Your task to perform on an android device: Open Google Maps Image 0: 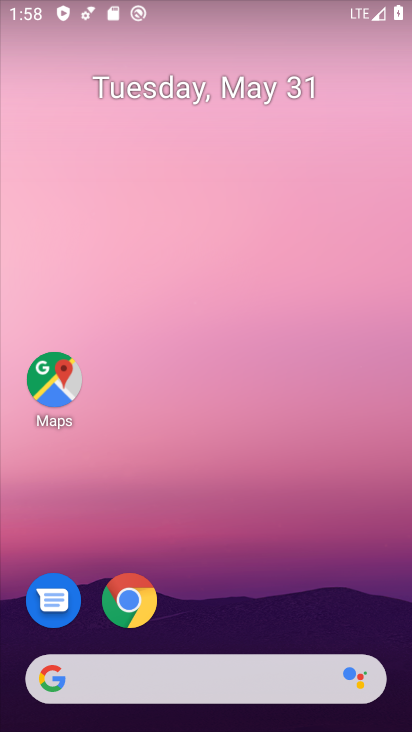
Step 0: press home button
Your task to perform on an android device: Open Google Maps Image 1: 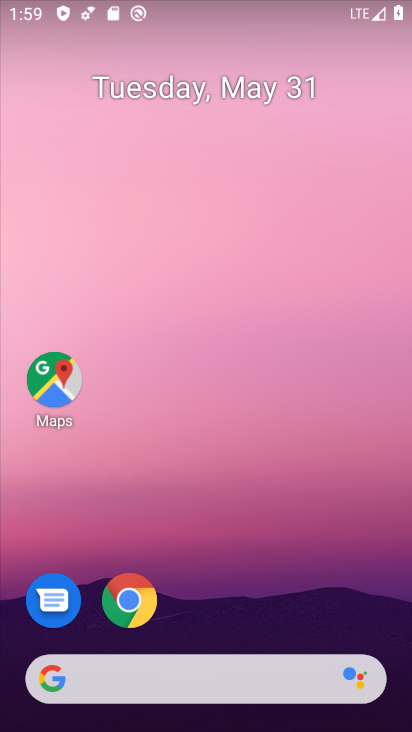
Step 1: drag from (225, 621) to (207, 0)
Your task to perform on an android device: Open Google Maps Image 2: 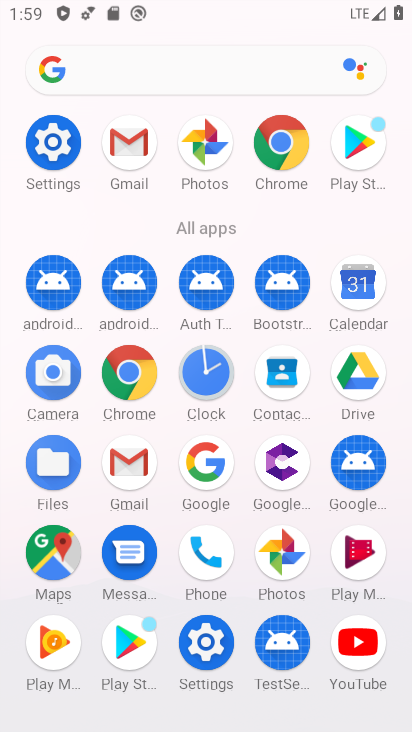
Step 2: click (45, 551)
Your task to perform on an android device: Open Google Maps Image 3: 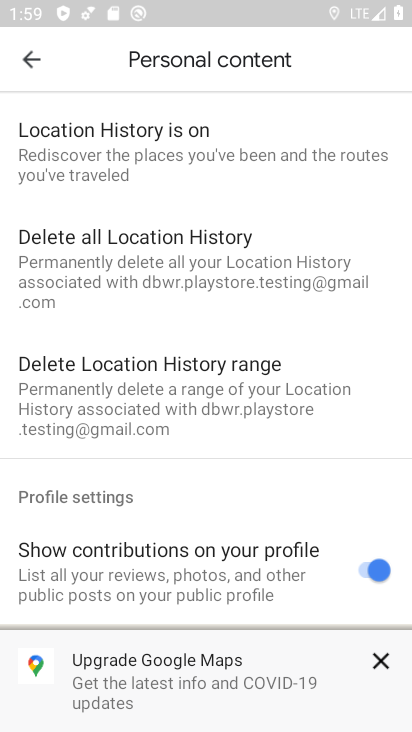
Step 3: click (22, 80)
Your task to perform on an android device: Open Google Maps Image 4: 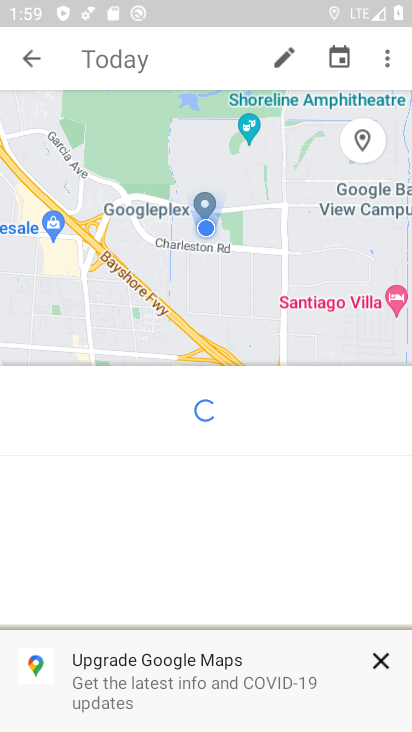
Step 4: click (34, 57)
Your task to perform on an android device: Open Google Maps Image 5: 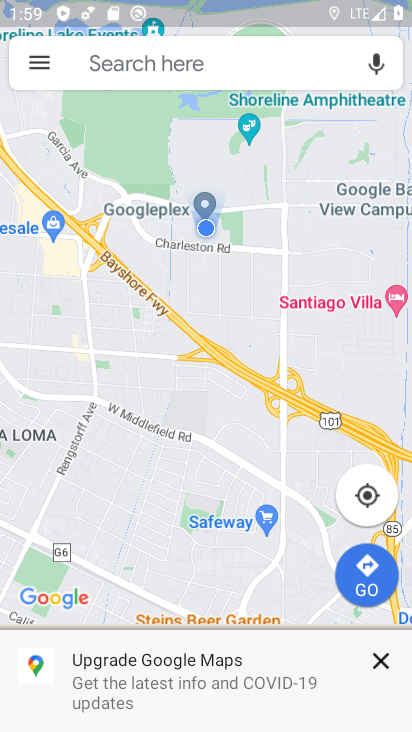
Step 5: task complete